Your task to perform on an android device: Open settings Image 0: 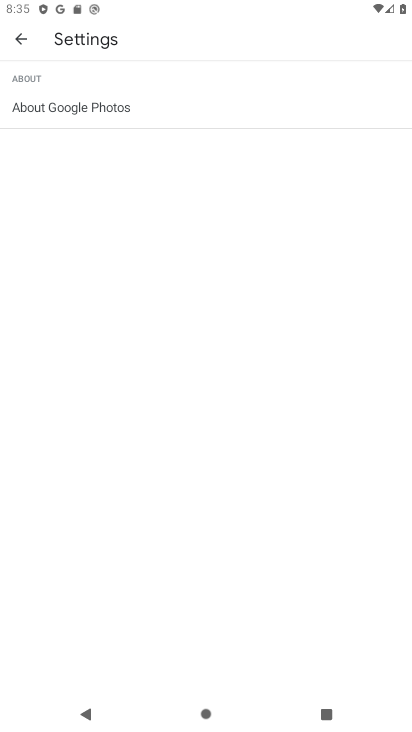
Step 0: press home button
Your task to perform on an android device: Open settings Image 1: 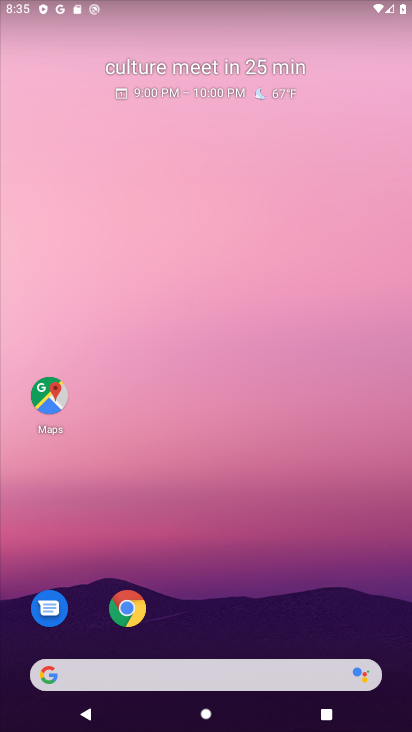
Step 1: drag from (247, 629) to (218, 86)
Your task to perform on an android device: Open settings Image 2: 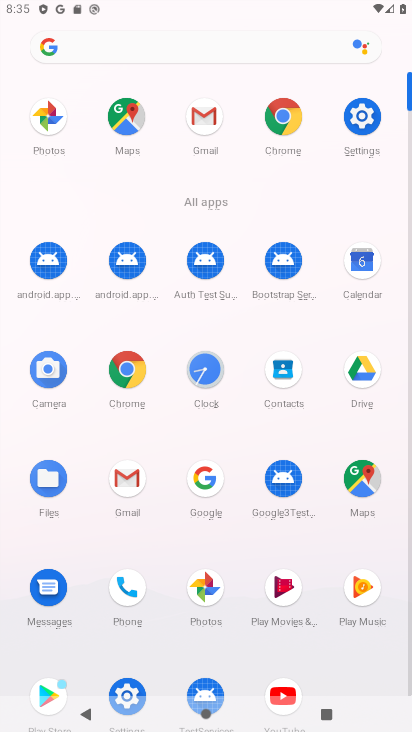
Step 2: click (361, 117)
Your task to perform on an android device: Open settings Image 3: 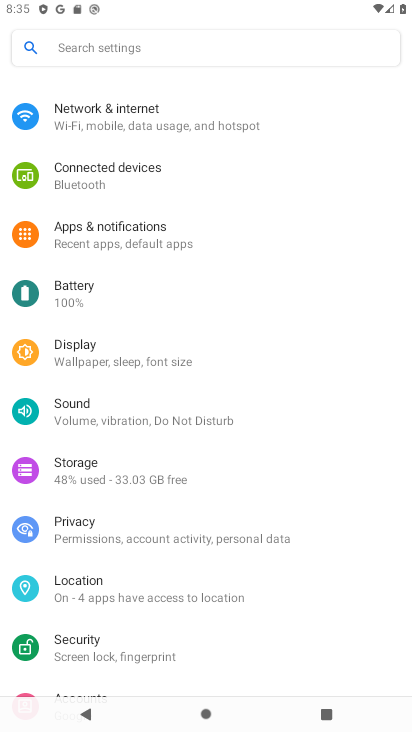
Step 3: task complete